Your task to perform on an android device: see tabs open on other devices in the chrome app Image 0: 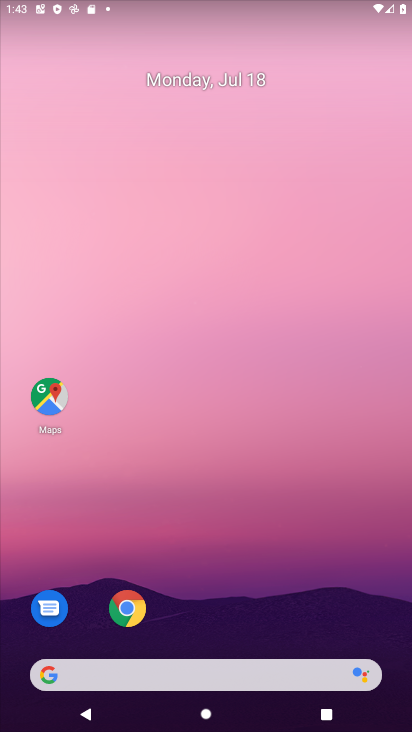
Step 0: drag from (343, 585) to (215, 73)
Your task to perform on an android device: see tabs open on other devices in the chrome app Image 1: 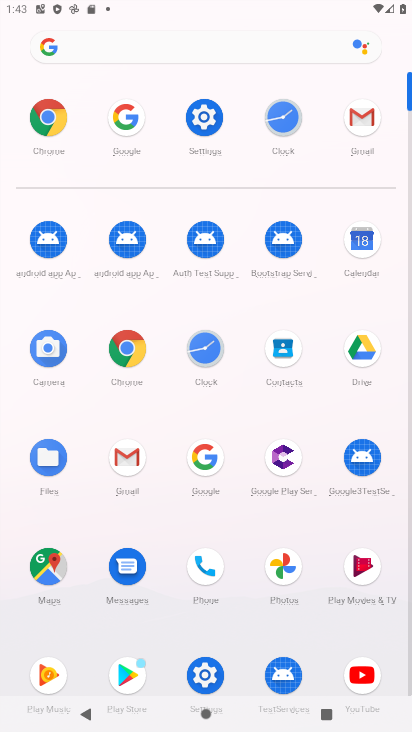
Step 1: click (132, 346)
Your task to perform on an android device: see tabs open on other devices in the chrome app Image 2: 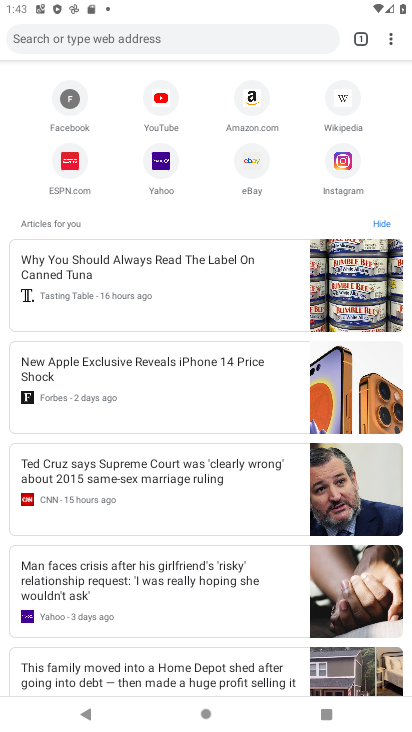
Step 2: task complete